Your task to perform on an android device: open sync settings in chrome Image 0: 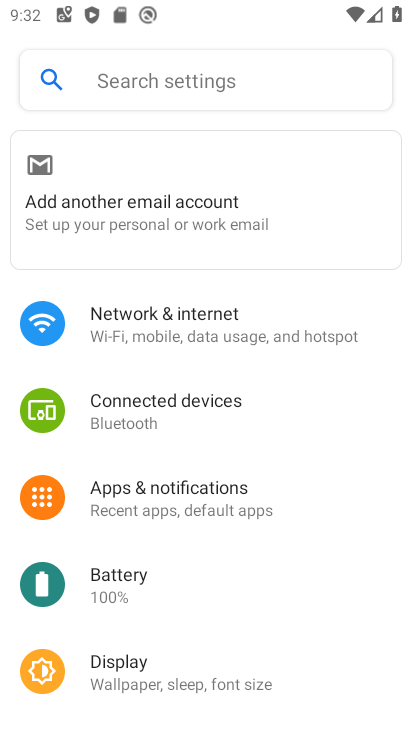
Step 0: press home button
Your task to perform on an android device: open sync settings in chrome Image 1: 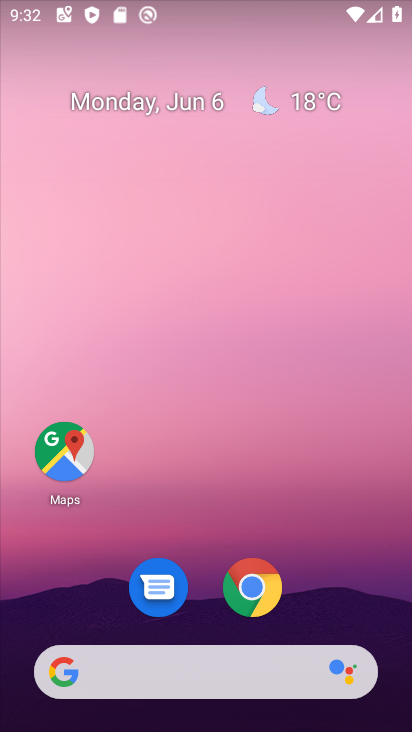
Step 1: click (244, 587)
Your task to perform on an android device: open sync settings in chrome Image 2: 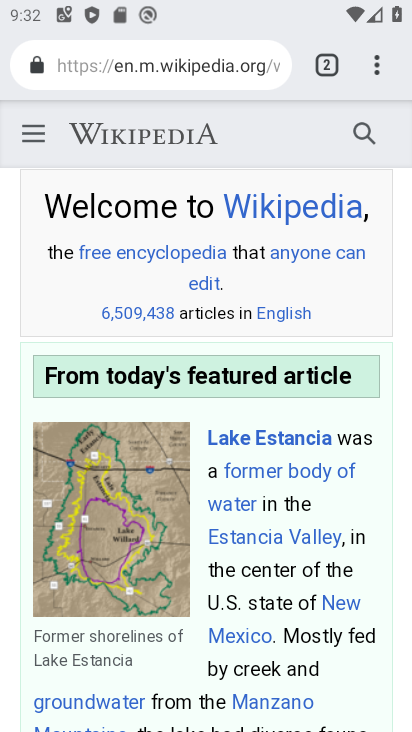
Step 2: click (380, 68)
Your task to perform on an android device: open sync settings in chrome Image 3: 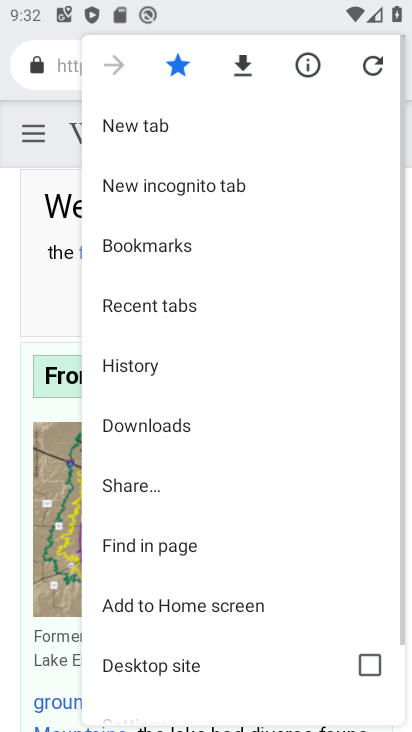
Step 3: drag from (164, 635) to (274, 200)
Your task to perform on an android device: open sync settings in chrome Image 4: 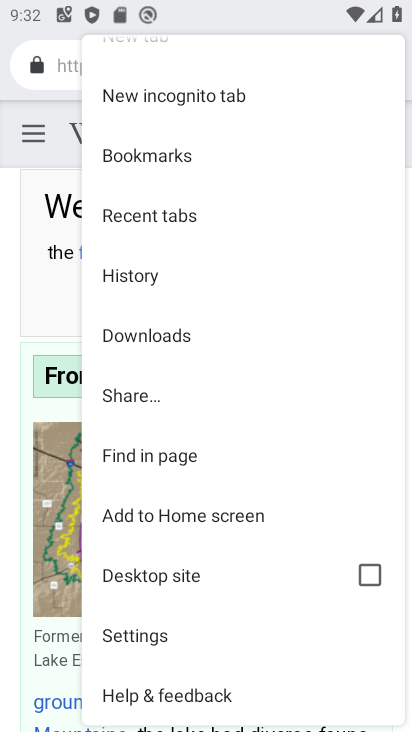
Step 4: click (132, 633)
Your task to perform on an android device: open sync settings in chrome Image 5: 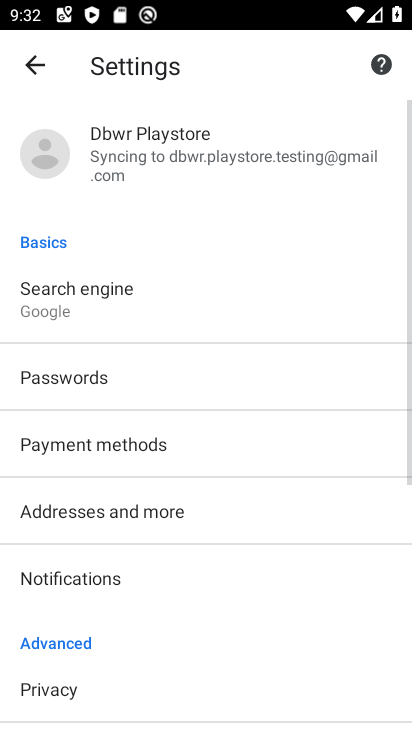
Step 5: click (180, 161)
Your task to perform on an android device: open sync settings in chrome Image 6: 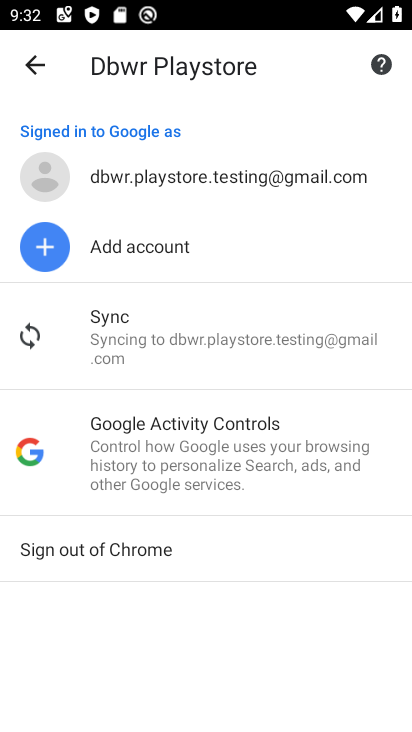
Step 6: click (137, 336)
Your task to perform on an android device: open sync settings in chrome Image 7: 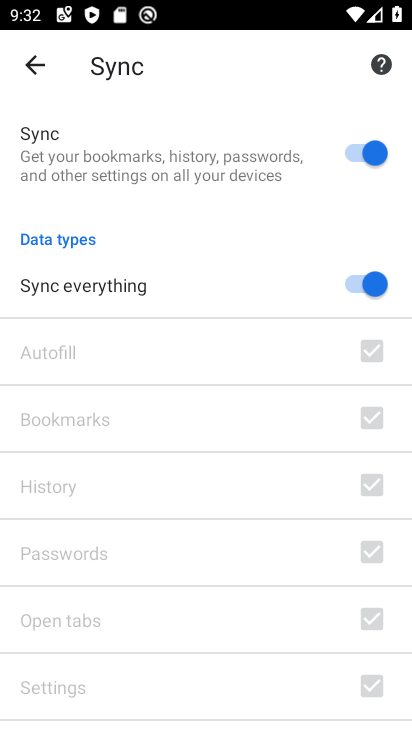
Step 7: task complete